Your task to perform on an android device: What is the news today? Image 0: 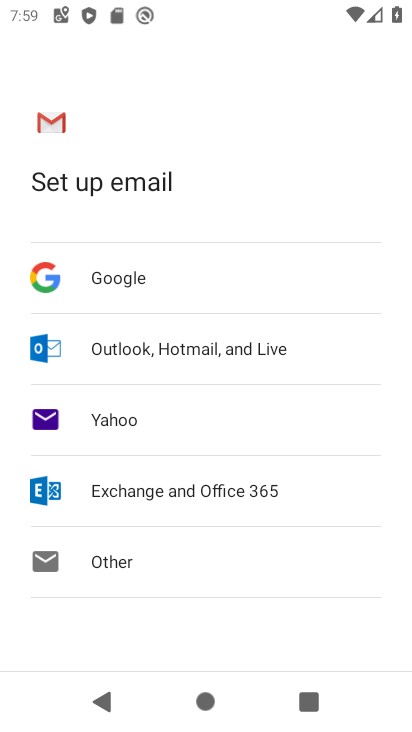
Step 0: press home button
Your task to perform on an android device: What is the news today? Image 1: 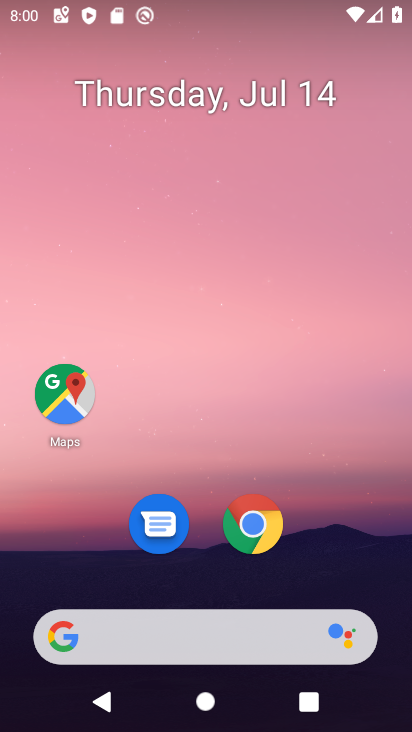
Step 1: click (239, 646)
Your task to perform on an android device: What is the news today? Image 2: 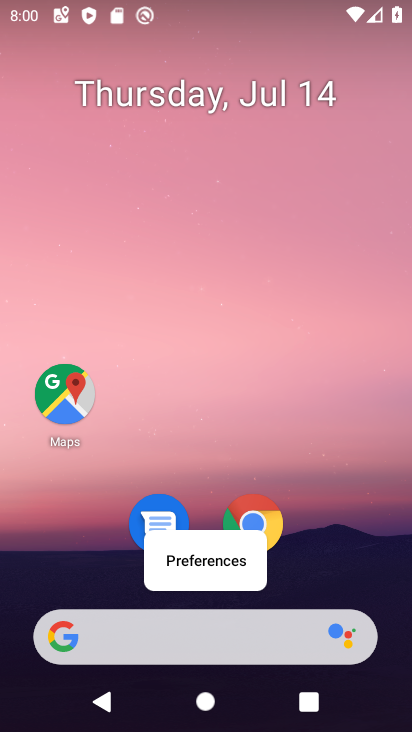
Step 2: click (208, 650)
Your task to perform on an android device: What is the news today? Image 3: 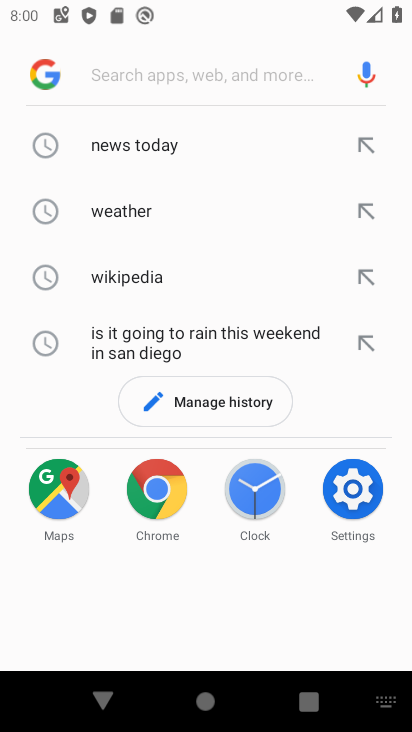
Step 3: click (158, 149)
Your task to perform on an android device: What is the news today? Image 4: 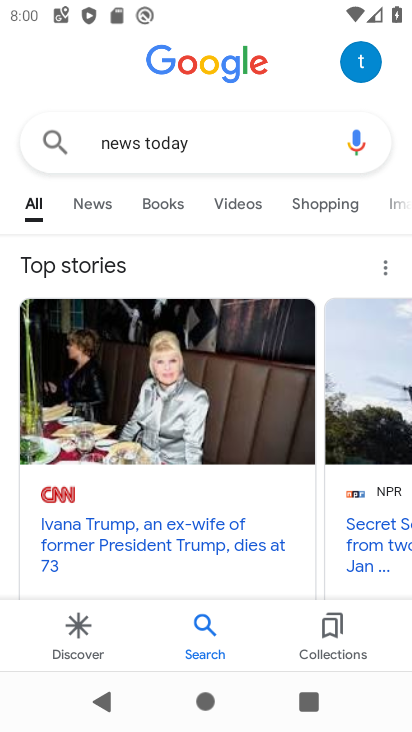
Step 4: click (105, 199)
Your task to perform on an android device: What is the news today? Image 5: 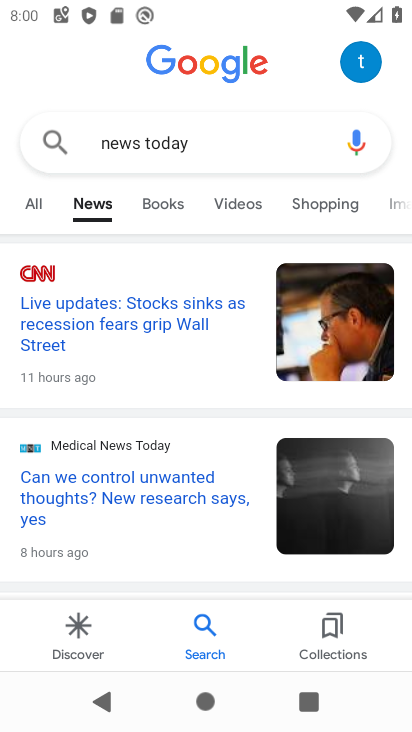
Step 5: task complete